Your task to perform on an android device: turn on airplane mode Image 0: 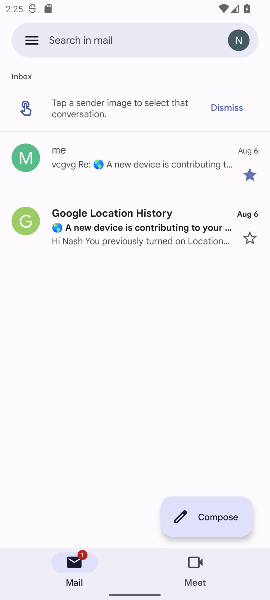
Step 0: task complete